Your task to perform on an android device: check android version Image 0: 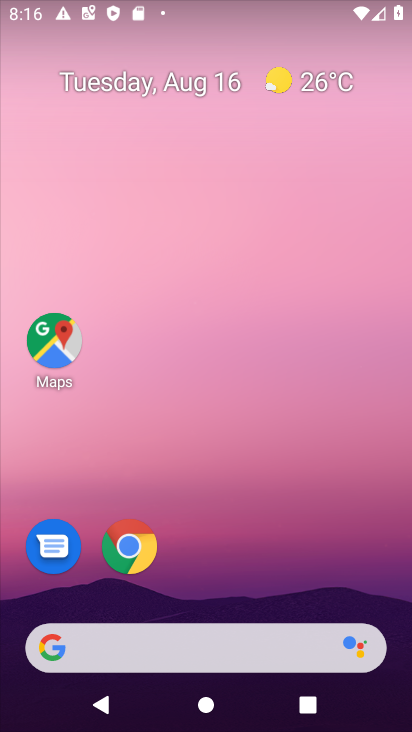
Step 0: drag from (278, 539) to (307, 7)
Your task to perform on an android device: check android version Image 1: 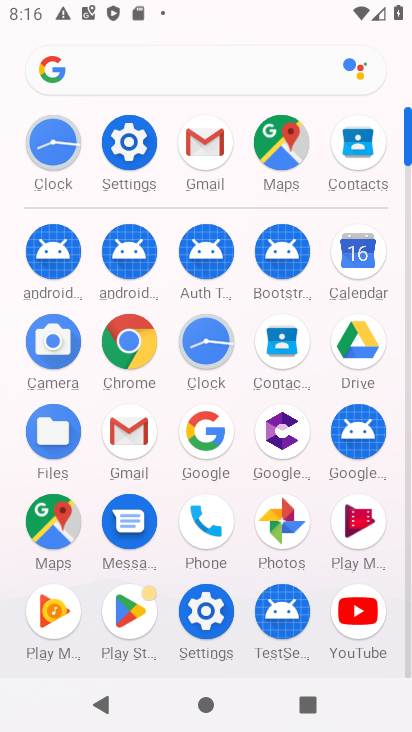
Step 1: click (126, 145)
Your task to perform on an android device: check android version Image 2: 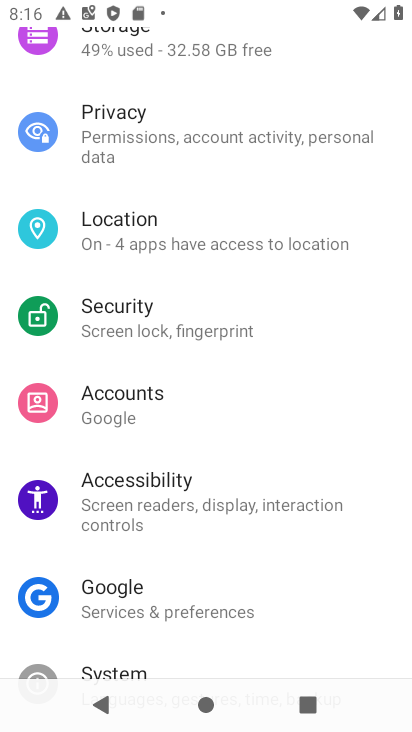
Step 2: drag from (263, 530) to (269, 360)
Your task to perform on an android device: check android version Image 3: 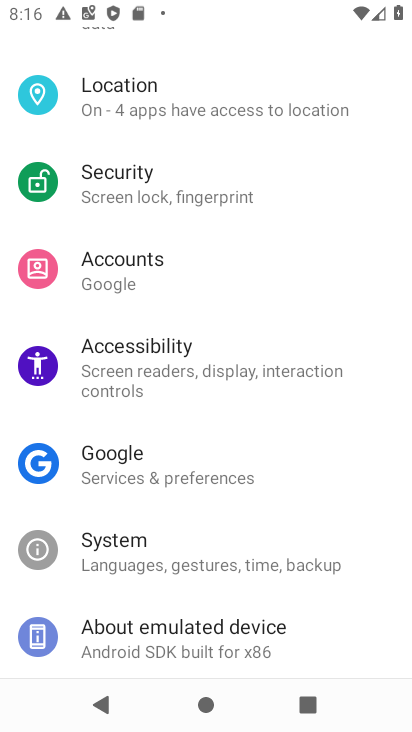
Step 3: click (201, 625)
Your task to perform on an android device: check android version Image 4: 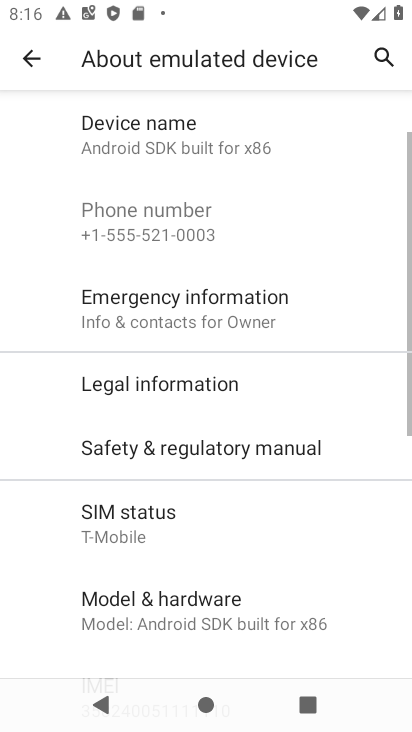
Step 4: drag from (236, 522) to (240, 141)
Your task to perform on an android device: check android version Image 5: 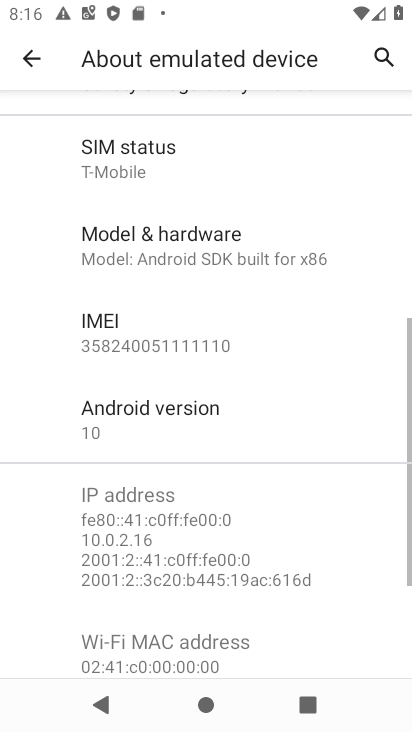
Step 5: click (220, 428)
Your task to perform on an android device: check android version Image 6: 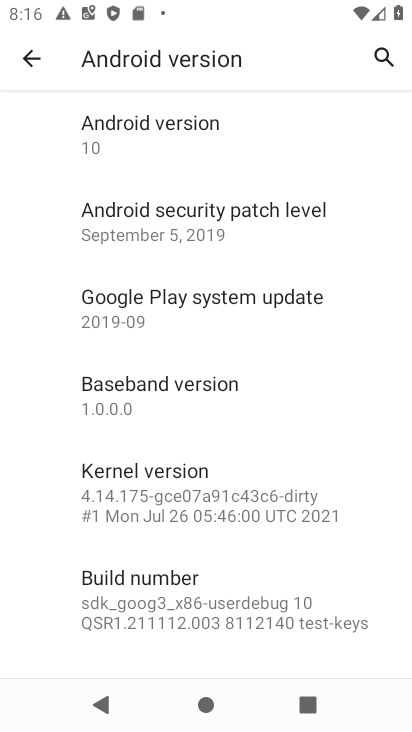
Step 6: task complete